Your task to perform on an android device: Find coffee shops on Maps Image 0: 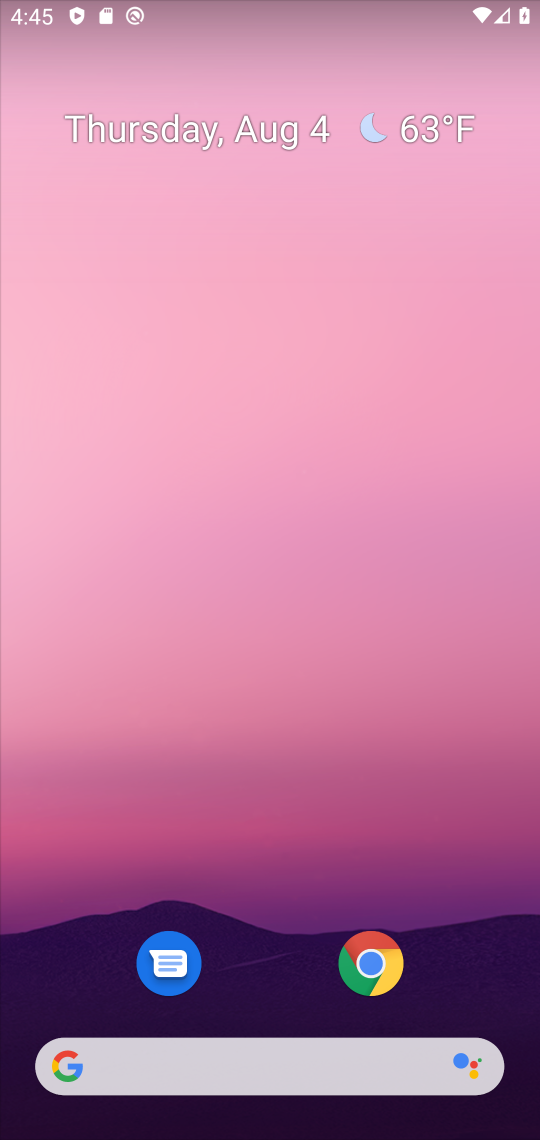
Step 0: press home button
Your task to perform on an android device: Find coffee shops on Maps Image 1: 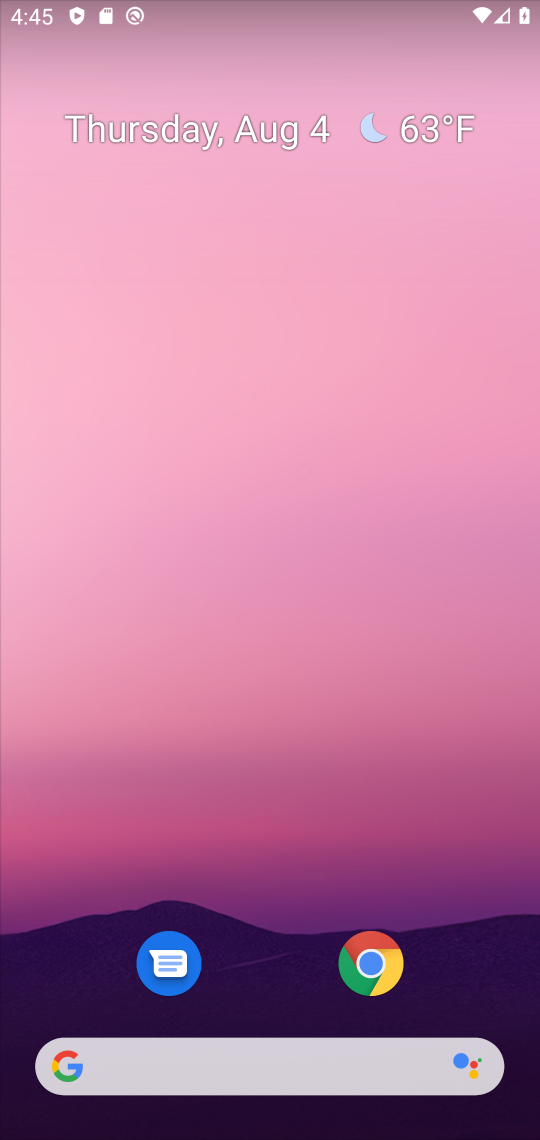
Step 1: drag from (277, 846) to (277, 182)
Your task to perform on an android device: Find coffee shops on Maps Image 2: 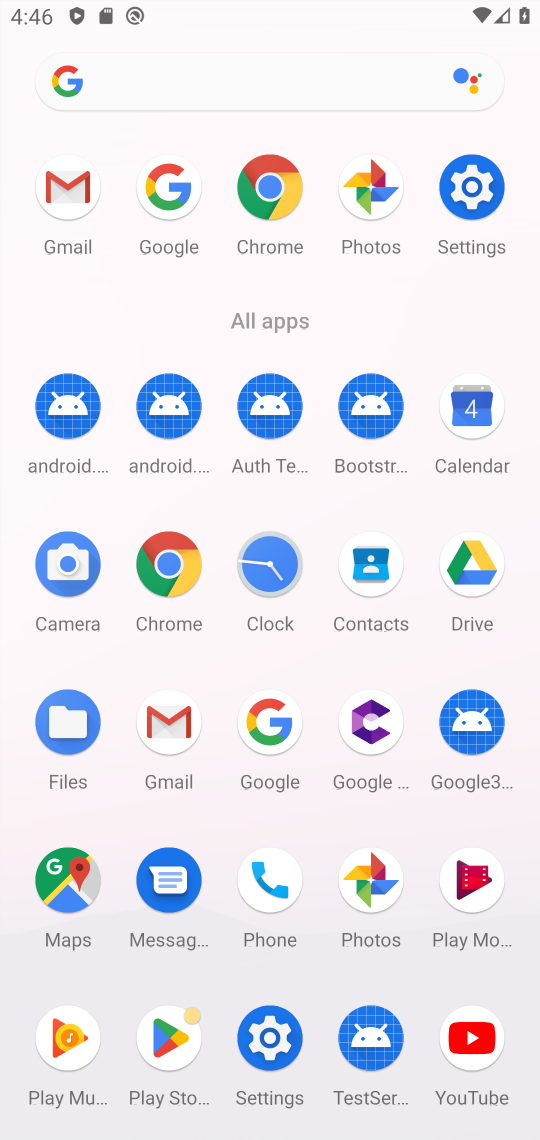
Step 2: click (70, 874)
Your task to perform on an android device: Find coffee shops on Maps Image 3: 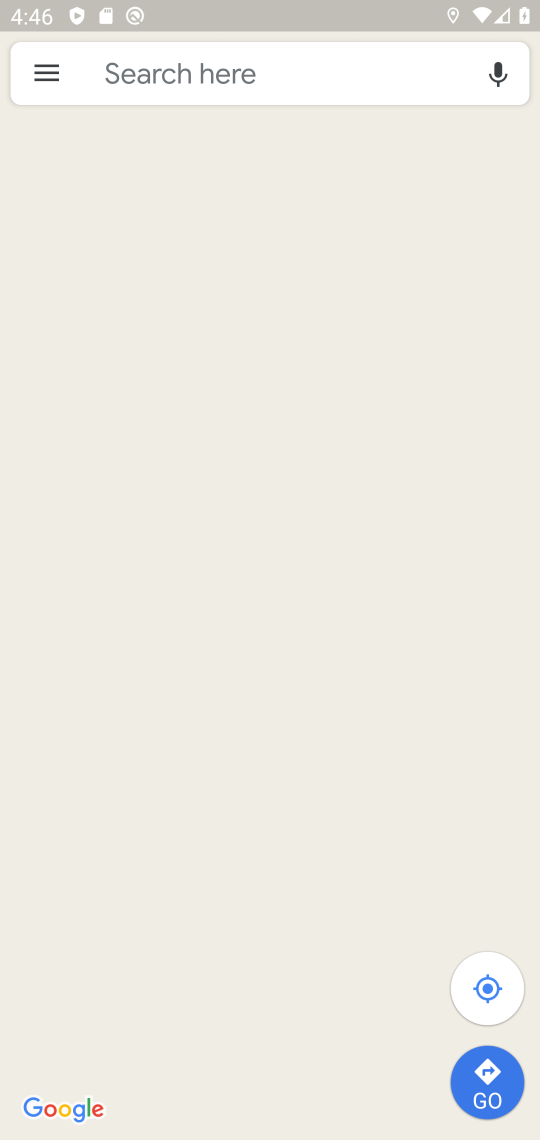
Step 3: click (249, 54)
Your task to perform on an android device: Find coffee shops on Maps Image 4: 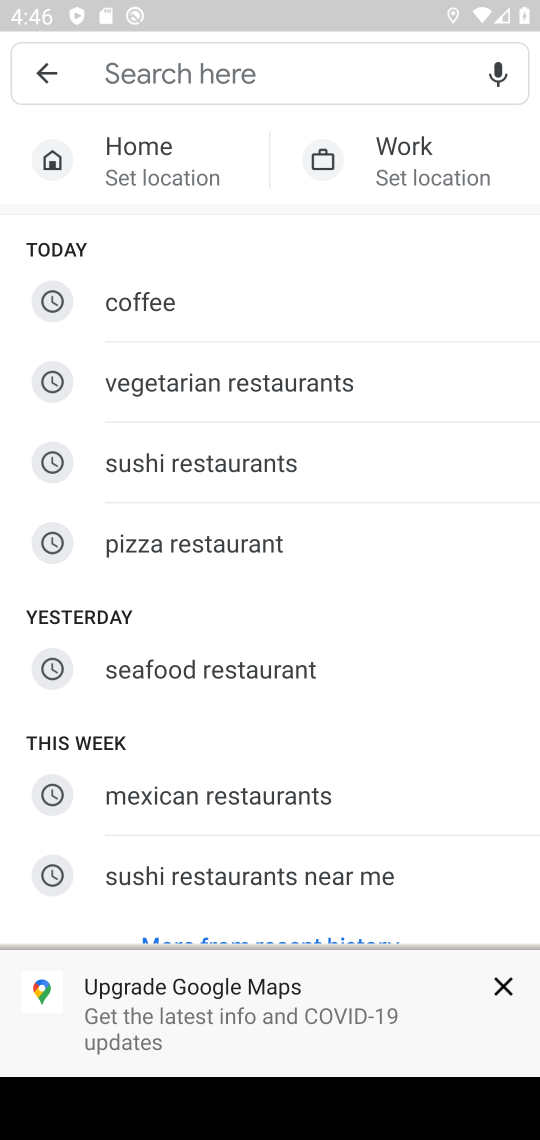
Step 4: type "coffee shops"
Your task to perform on an android device: Find coffee shops on Maps Image 5: 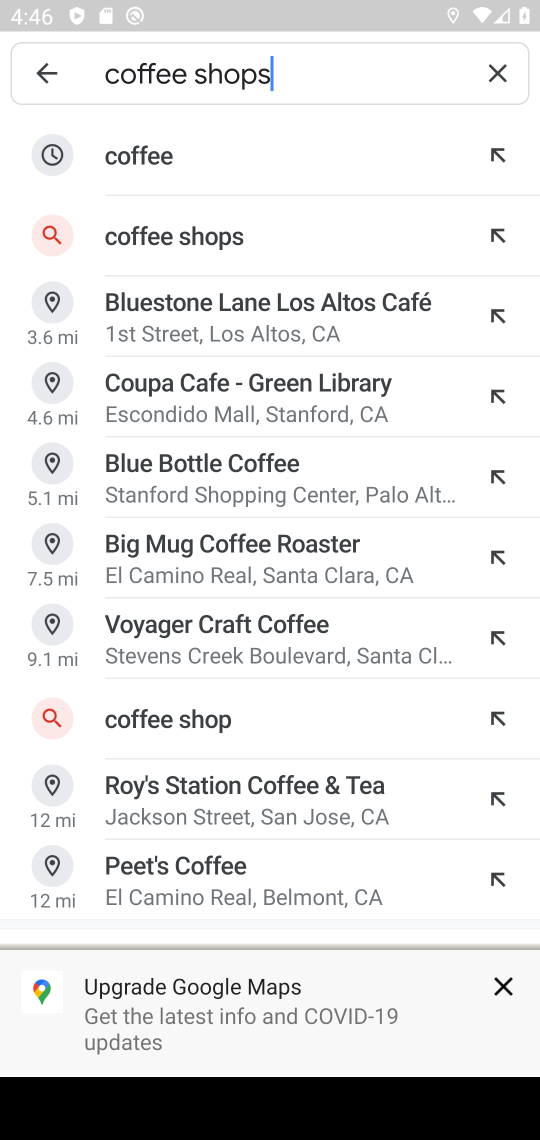
Step 5: click (219, 232)
Your task to perform on an android device: Find coffee shops on Maps Image 6: 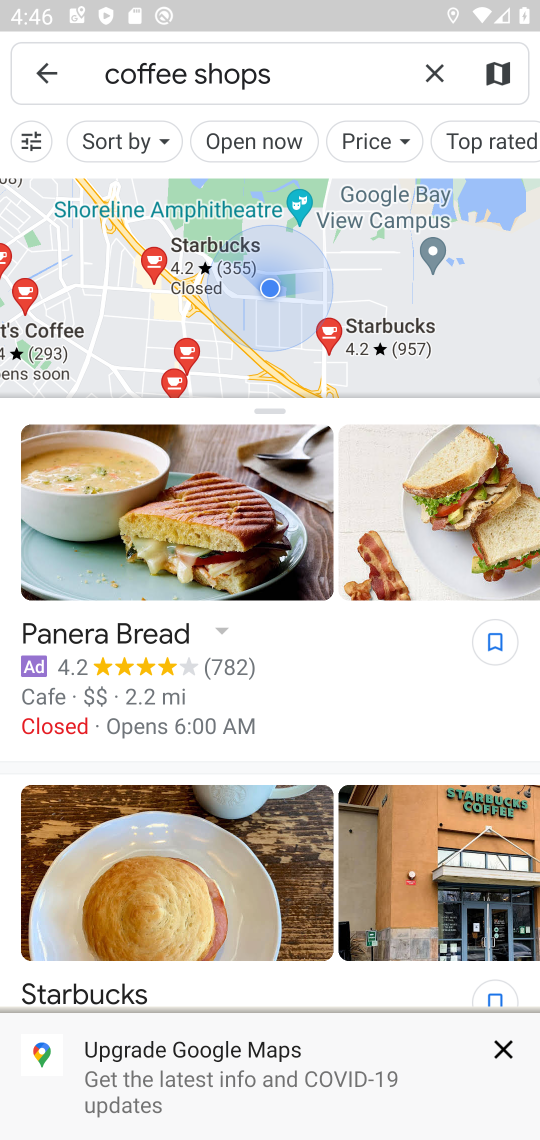
Step 6: task complete